Your task to perform on an android device: Do I have any events today? Image 0: 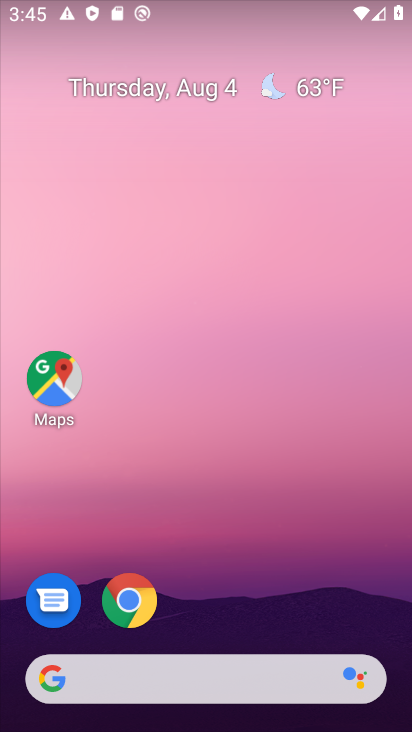
Step 0: drag from (276, 573) to (253, 83)
Your task to perform on an android device: Do I have any events today? Image 1: 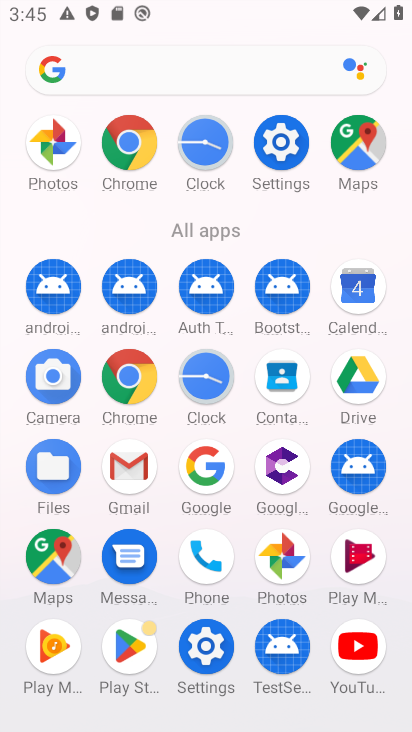
Step 1: click (360, 296)
Your task to perform on an android device: Do I have any events today? Image 2: 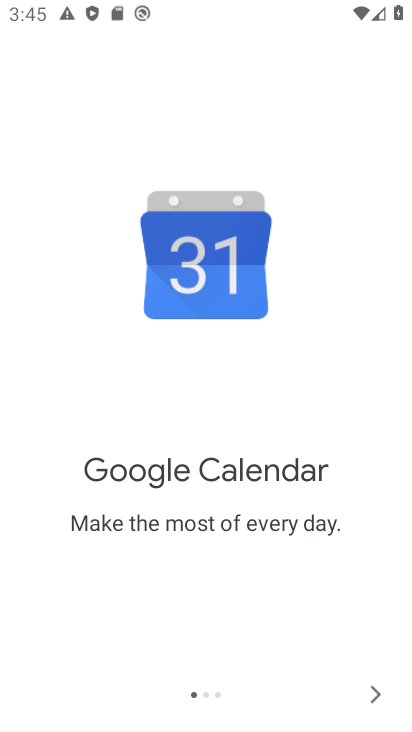
Step 2: click (376, 689)
Your task to perform on an android device: Do I have any events today? Image 3: 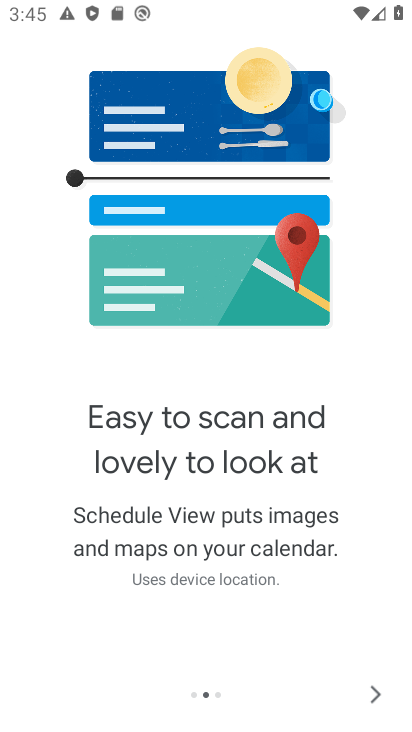
Step 3: click (382, 685)
Your task to perform on an android device: Do I have any events today? Image 4: 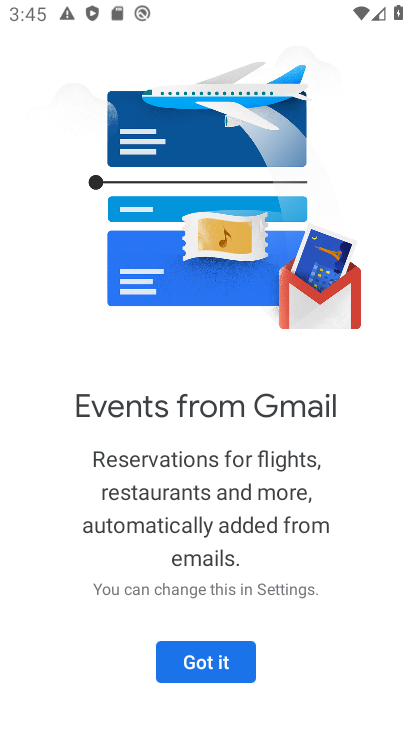
Step 4: click (209, 669)
Your task to perform on an android device: Do I have any events today? Image 5: 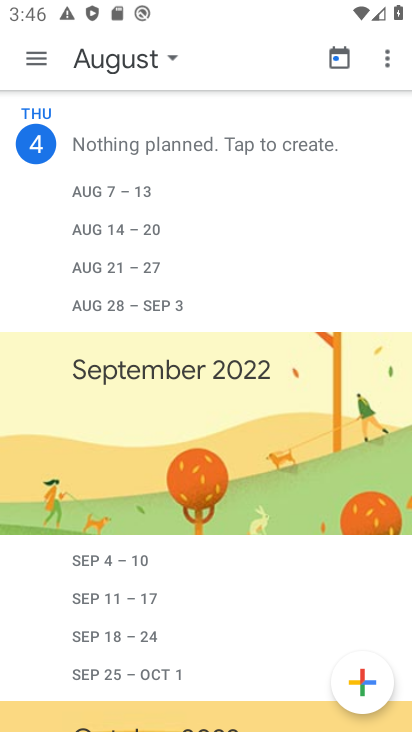
Step 5: task complete